Your task to perform on an android device: What's the weather? Image 0: 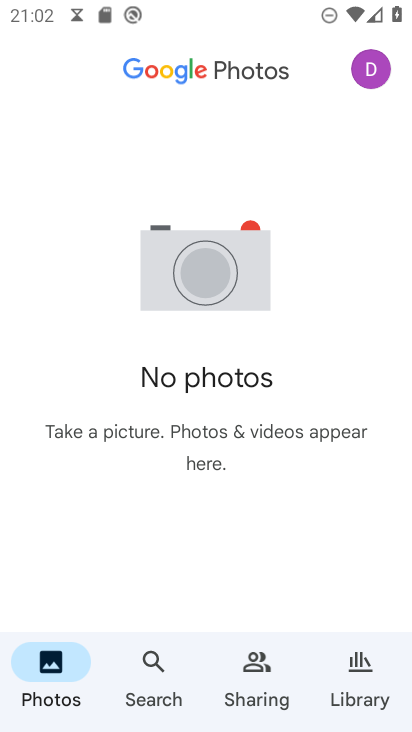
Step 0: press home button
Your task to perform on an android device: What's the weather? Image 1: 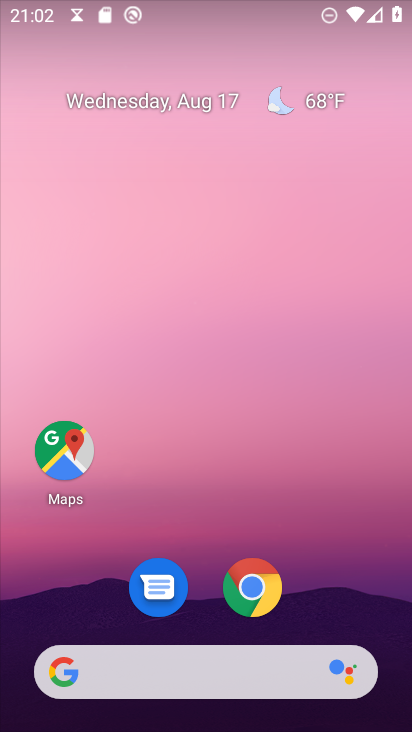
Step 1: click (127, 661)
Your task to perform on an android device: What's the weather? Image 2: 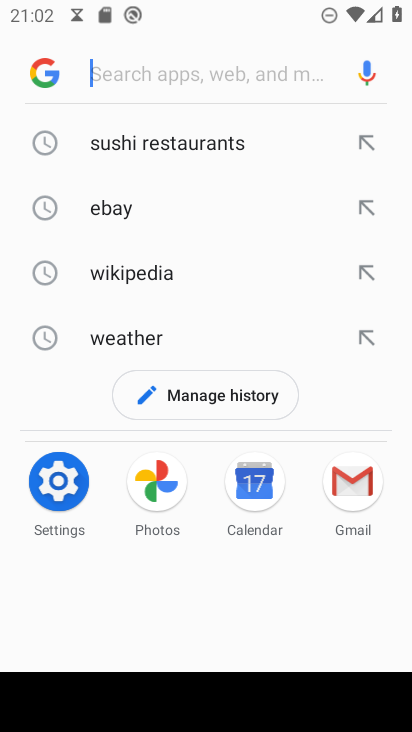
Step 2: click (130, 71)
Your task to perform on an android device: What's the weather? Image 3: 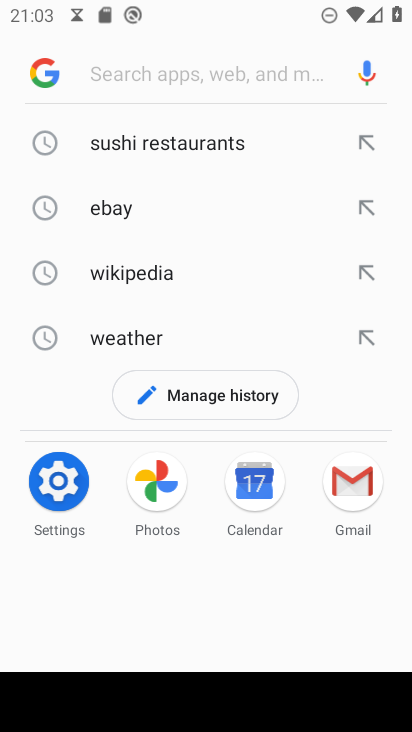
Step 3: type "What's the weather?"
Your task to perform on an android device: What's the weather? Image 4: 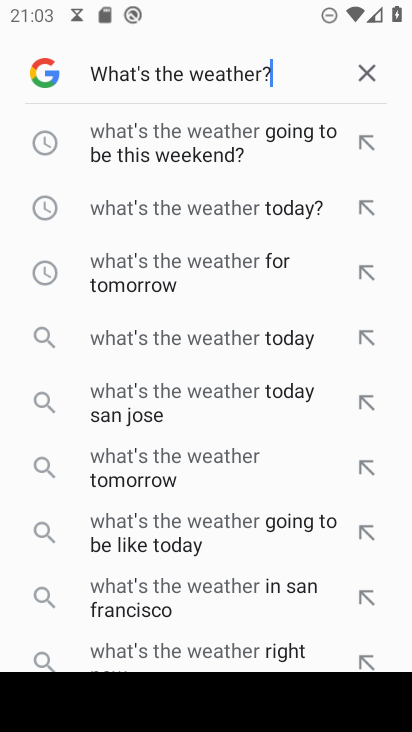
Step 4: type ""
Your task to perform on an android device: What's the weather? Image 5: 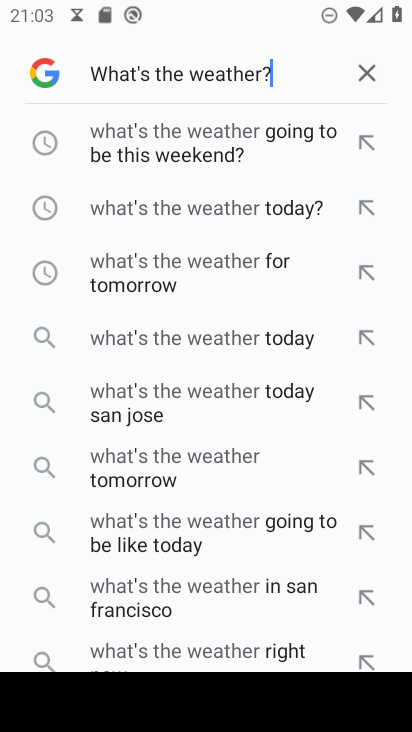
Step 5: task complete